Your task to perform on an android device: When is my next appointment? Image 0: 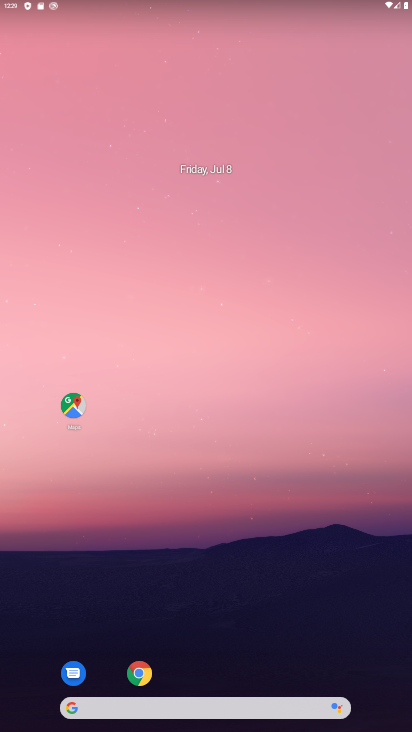
Step 0: drag from (224, 668) to (281, 0)
Your task to perform on an android device: When is my next appointment? Image 1: 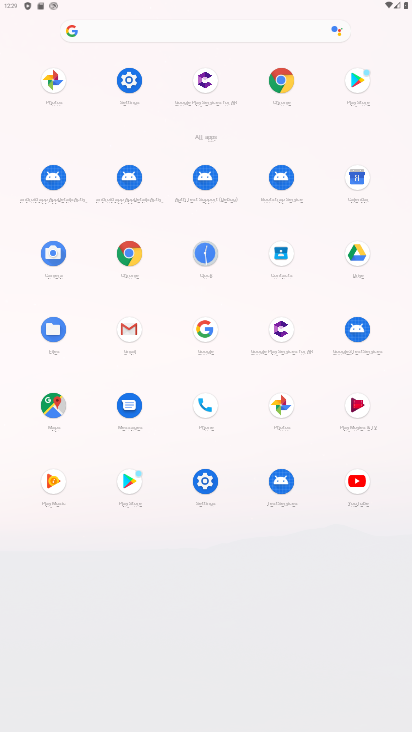
Step 1: click (353, 175)
Your task to perform on an android device: When is my next appointment? Image 2: 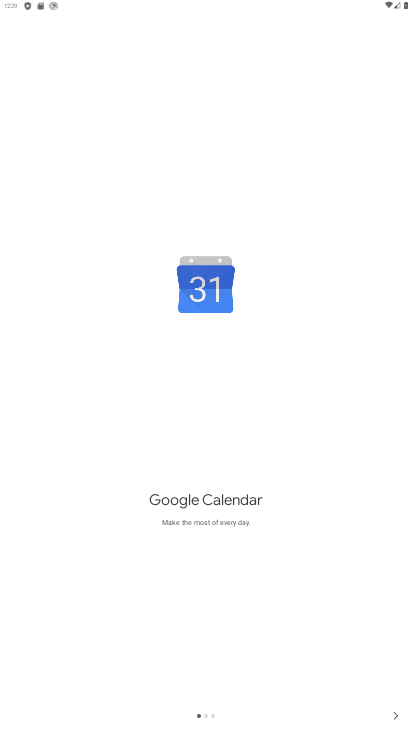
Step 2: click (398, 715)
Your task to perform on an android device: When is my next appointment? Image 3: 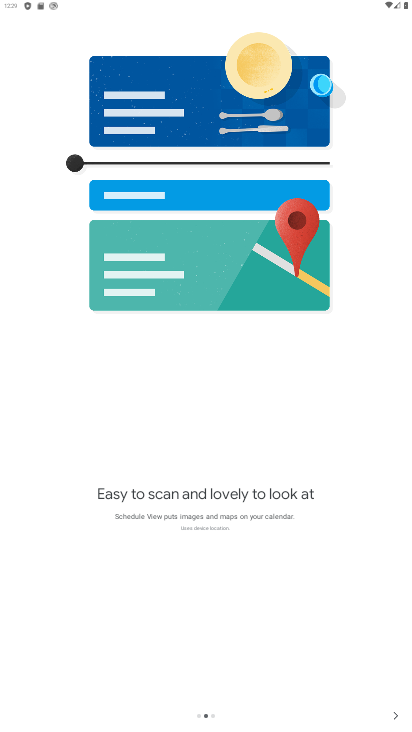
Step 3: click (398, 715)
Your task to perform on an android device: When is my next appointment? Image 4: 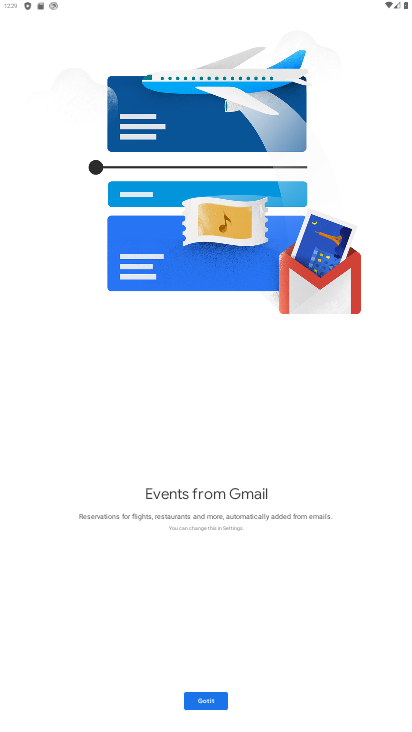
Step 4: click (210, 695)
Your task to perform on an android device: When is my next appointment? Image 5: 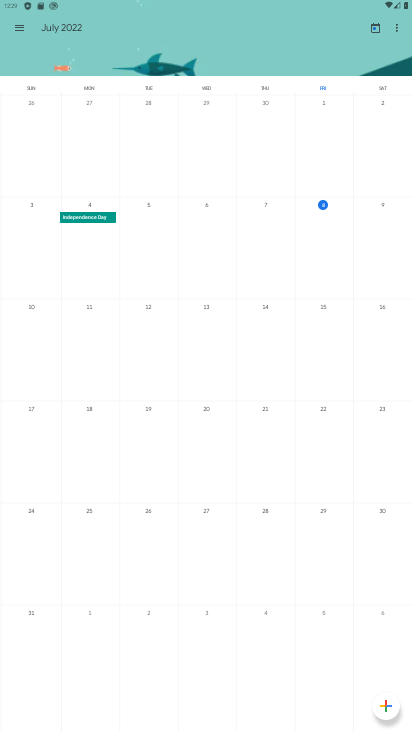
Step 5: click (329, 222)
Your task to perform on an android device: When is my next appointment? Image 6: 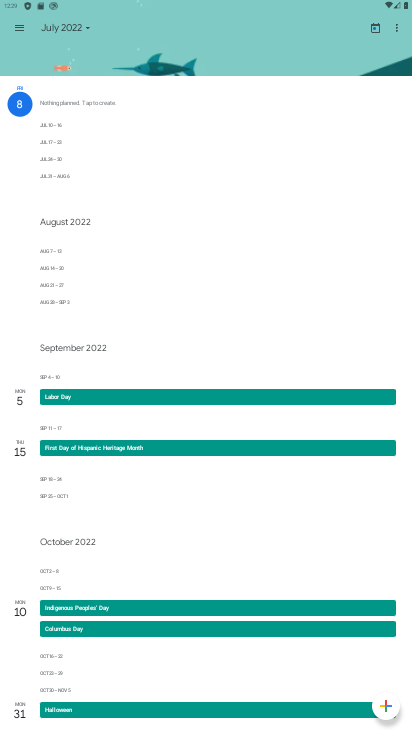
Step 6: click (18, 31)
Your task to perform on an android device: When is my next appointment? Image 7: 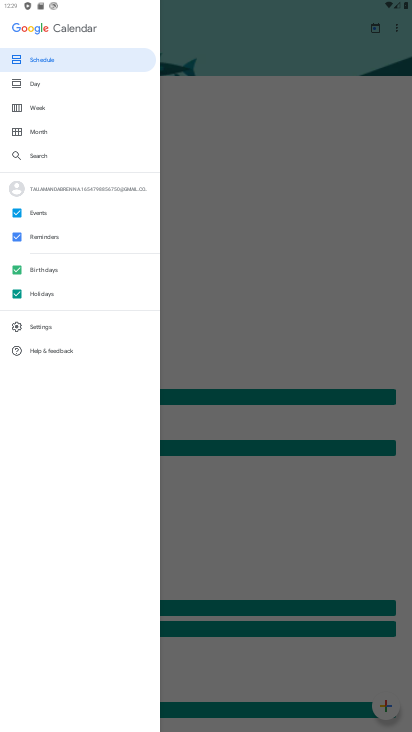
Step 7: click (45, 132)
Your task to perform on an android device: When is my next appointment? Image 8: 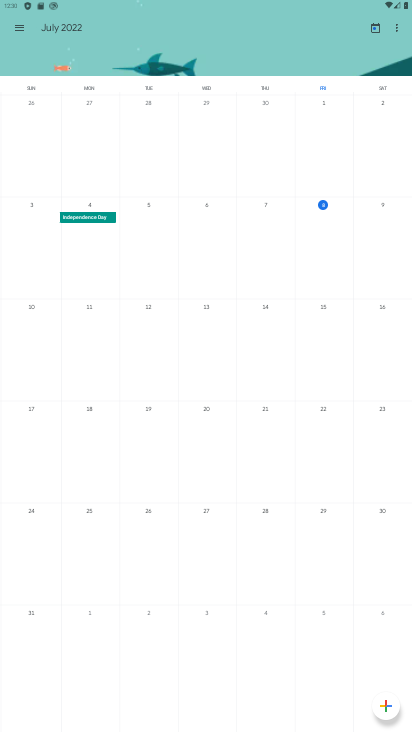
Step 8: click (23, 26)
Your task to perform on an android device: When is my next appointment? Image 9: 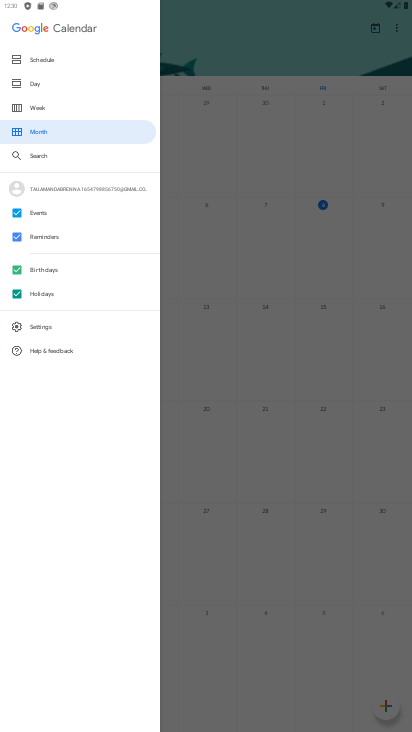
Step 9: click (35, 102)
Your task to perform on an android device: When is my next appointment? Image 10: 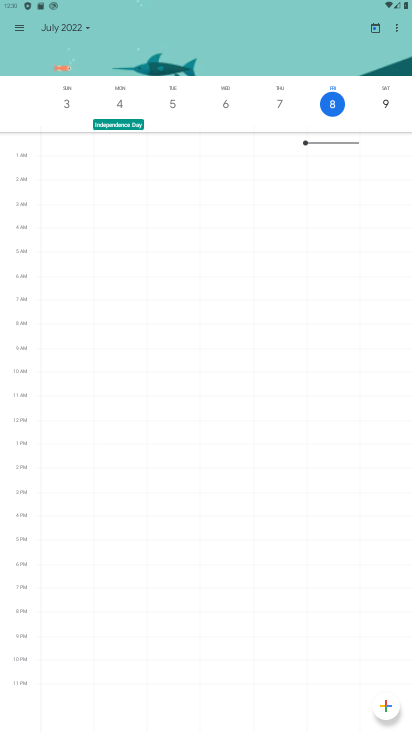
Step 10: task complete